Your task to perform on an android device: Go to CNN.com Image 0: 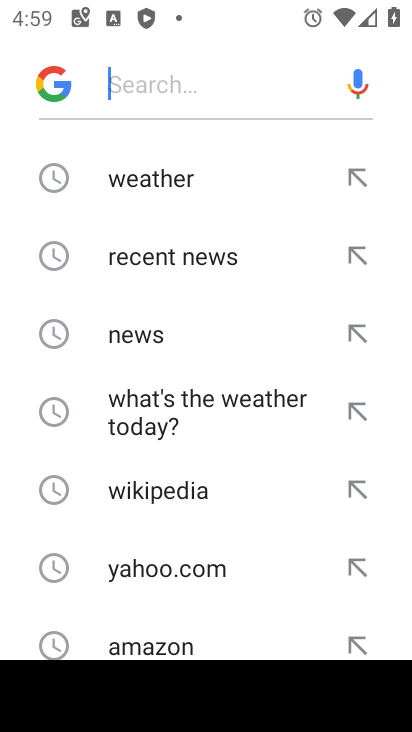
Step 0: press home button
Your task to perform on an android device: Go to CNN.com Image 1: 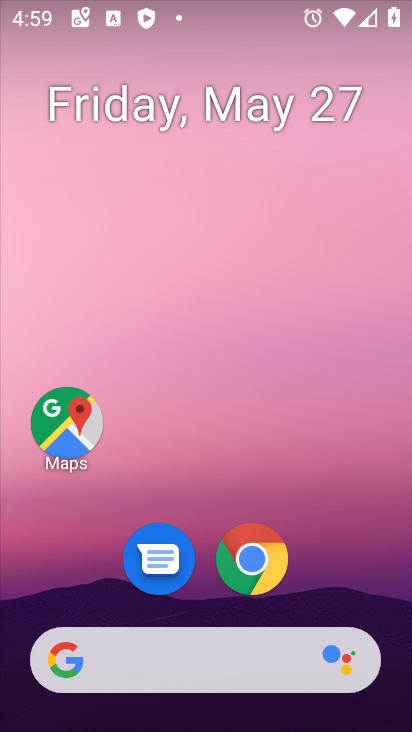
Step 1: drag from (237, 623) to (214, 11)
Your task to perform on an android device: Go to CNN.com Image 2: 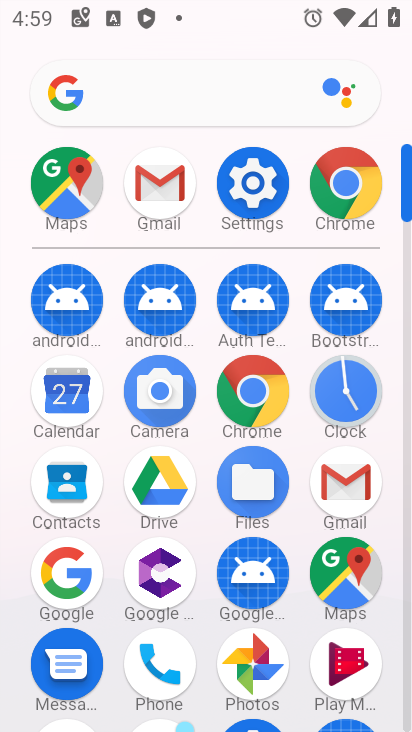
Step 2: click (265, 400)
Your task to perform on an android device: Go to CNN.com Image 3: 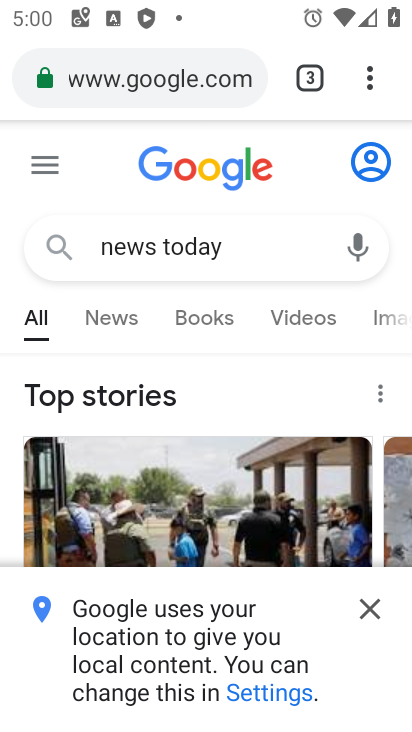
Step 3: click (213, 80)
Your task to perform on an android device: Go to CNN.com Image 4: 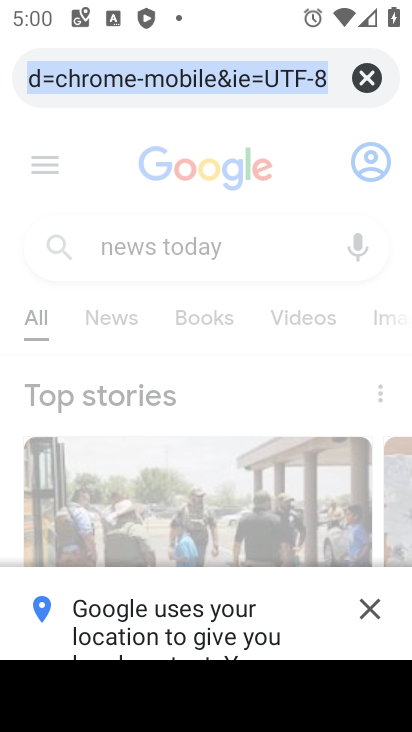
Step 4: type "cnn.com"
Your task to perform on an android device: Go to CNN.com Image 5: 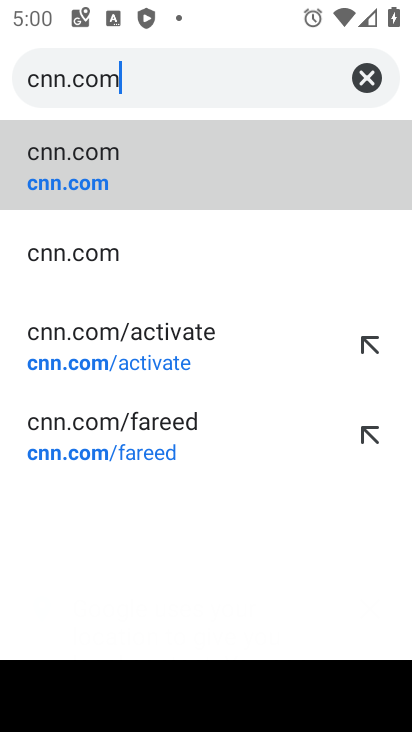
Step 5: click (95, 186)
Your task to perform on an android device: Go to CNN.com Image 6: 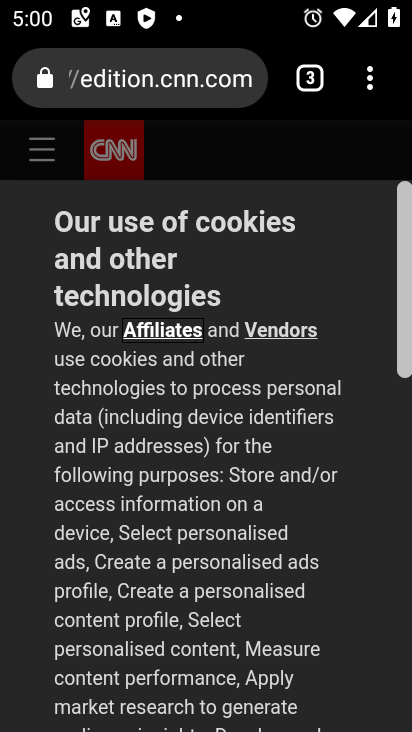
Step 6: task complete